Your task to perform on an android device: Go to location settings Image 0: 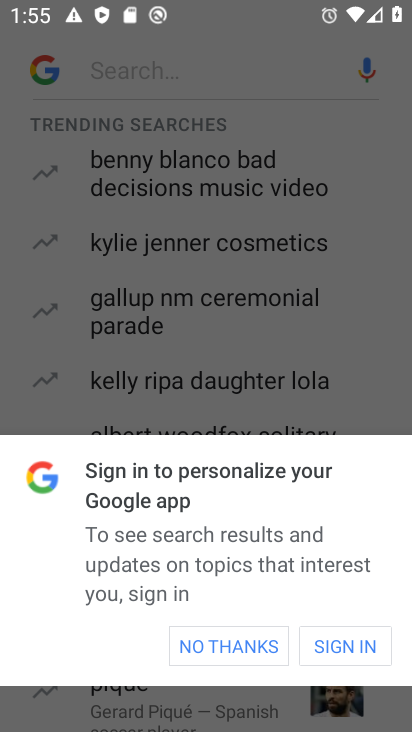
Step 0: press home button
Your task to perform on an android device: Go to location settings Image 1: 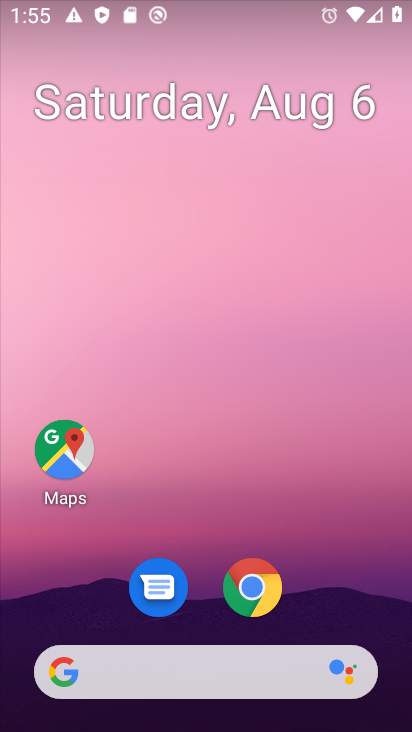
Step 1: drag from (196, 551) to (197, 180)
Your task to perform on an android device: Go to location settings Image 2: 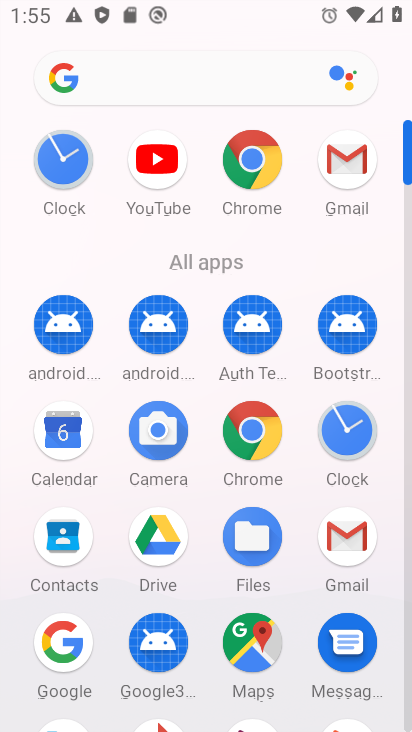
Step 2: drag from (219, 537) to (233, 229)
Your task to perform on an android device: Go to location settings Image 3: 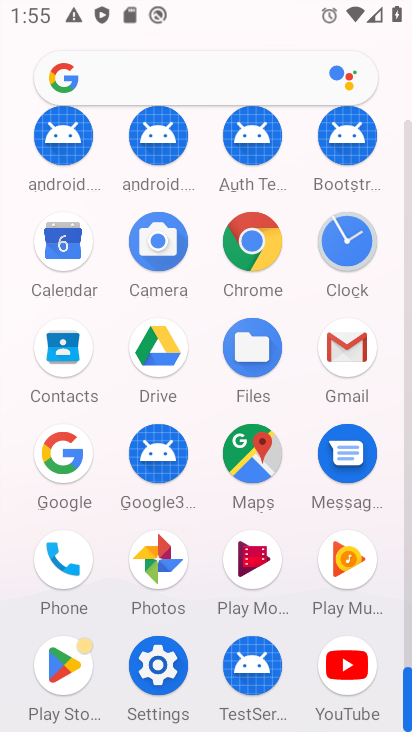
Step 3: click (162, 648)
Your task to perform on an android device: Go to location settings Image 4: 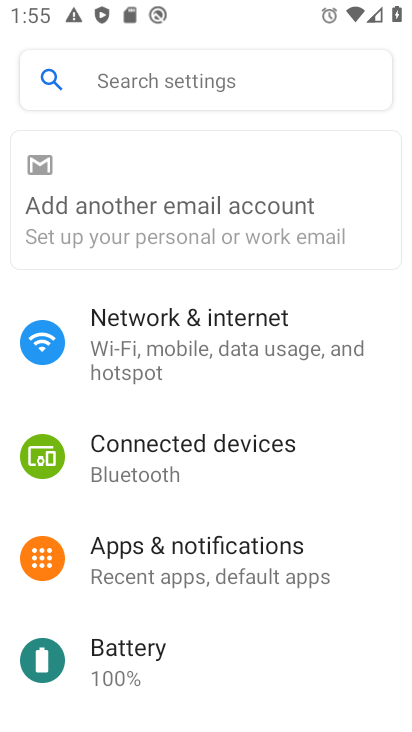
Step 4: drag from (201, 666) to (267, 344)
Your task to perform on an android device: Go to location settings Image 5: 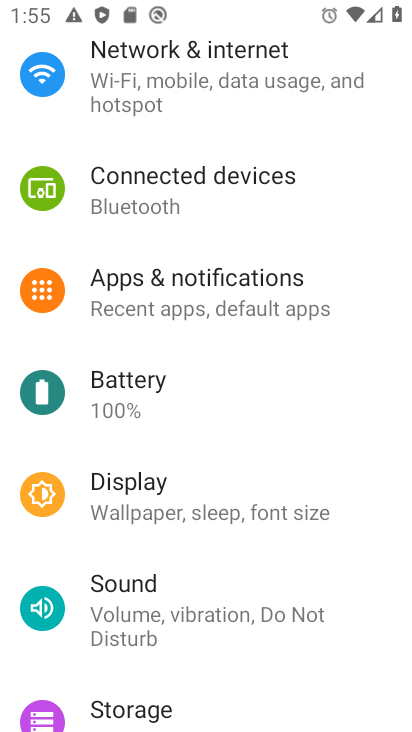
Step 5: drag from (254, 619) to (272, 341)
Your task to perform on an android device: Go to location settings Image 6: 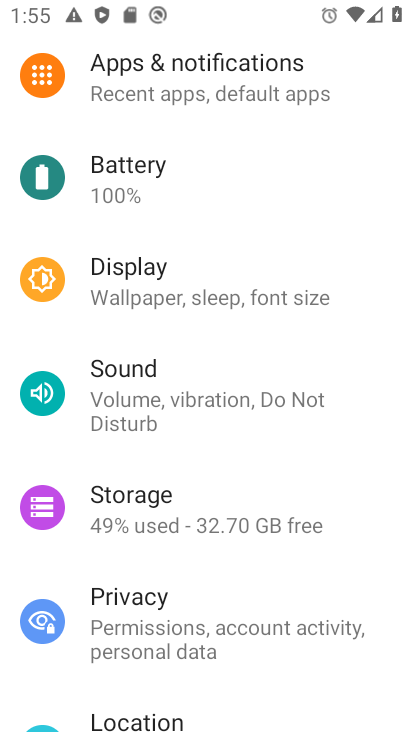
Step 6: drag from (228, 567) to (235, 358)
Your task to perform on an android device: Go to location settings Image 7: 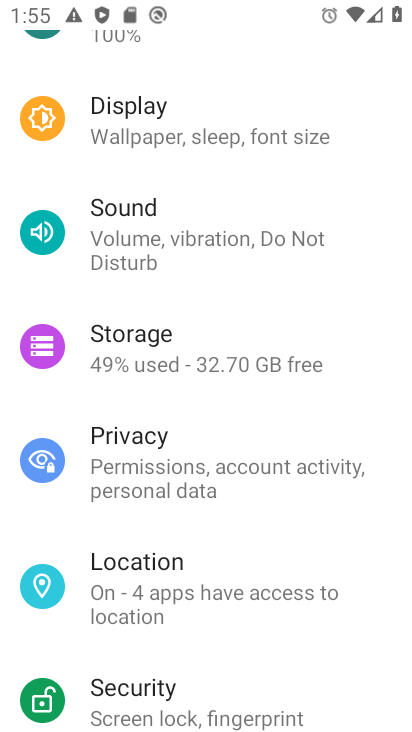
Step 7: click (193, 584)
Your task to perform on an android device: Go to location settings Image 8: 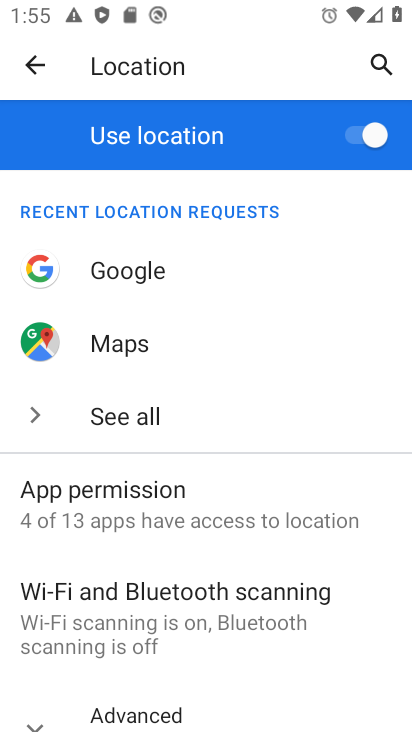
Step 8: task complete